Your task to perform on an android device: find photos in the google photos app Image 0: 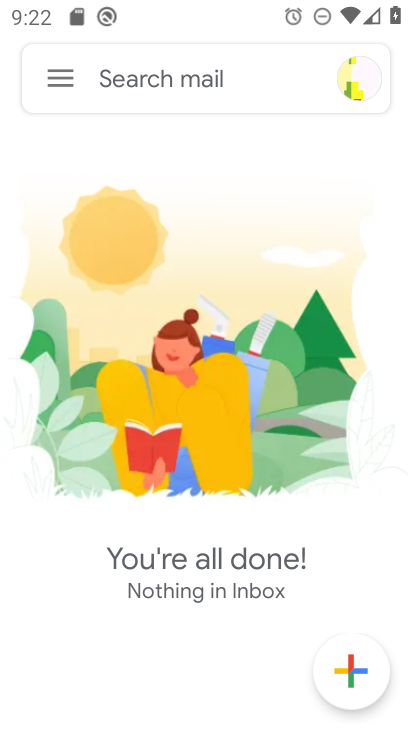
Step 0: press home button
Your task to perform on an android device: find photos in the google photos app Image 1: 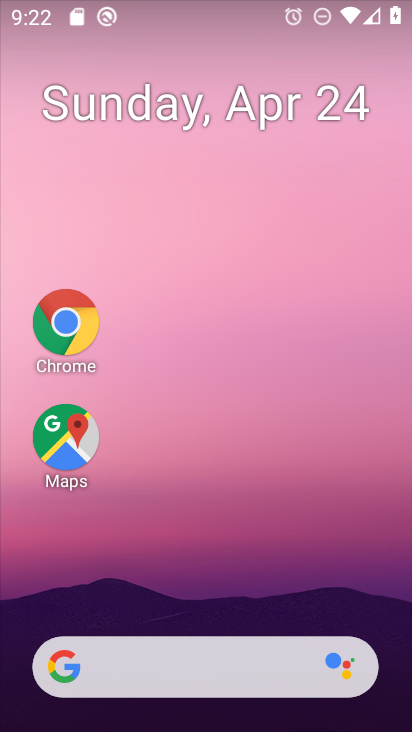
Step 1: drag from (268, 561) to (186, 84)
Your task to perform on an android device: find photos in the google photos app Image 2: 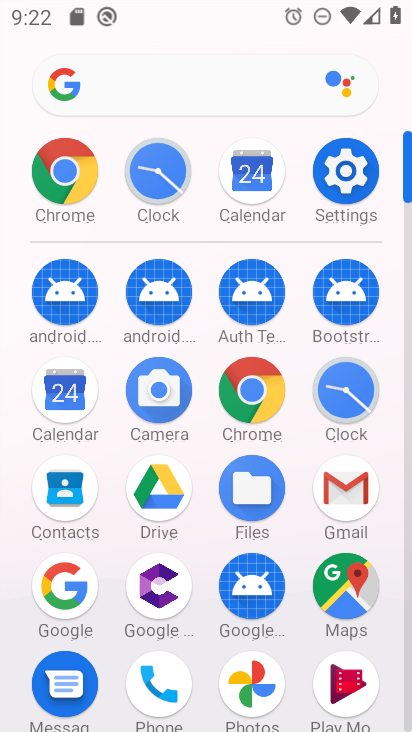
Step 2: click (244, 678)
Your task to perform on an android device: find photos in the google photos app Image 3: 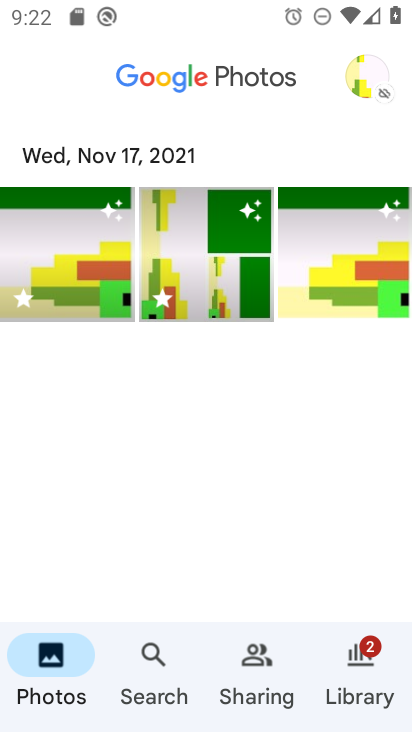
Step 3: click (149, 652)
Your task to perform on an android device: find photos in the google photos app Image 4: 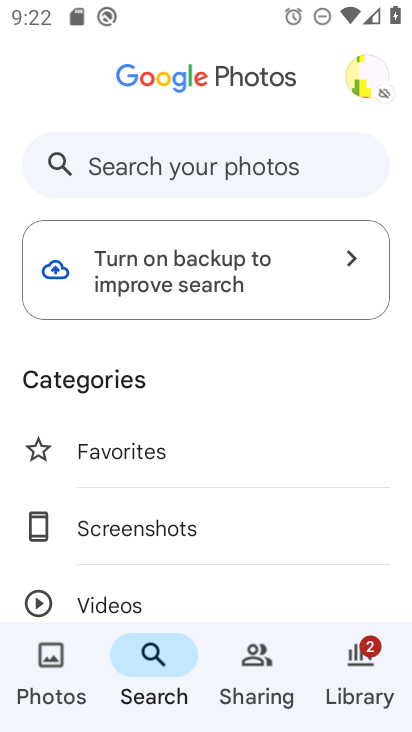
Step 4: task complete